Your task to perform on an android device: check battery use Image 0: 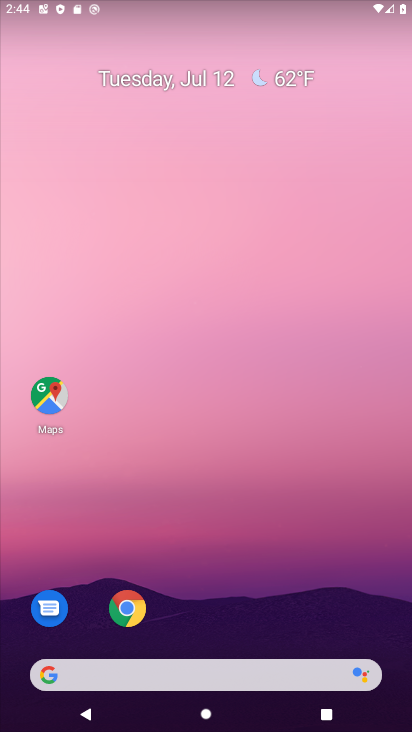
Step 0: drag from (117, 670) to (269, 168)
Your task to perform on an android device: check battery use Image 1: 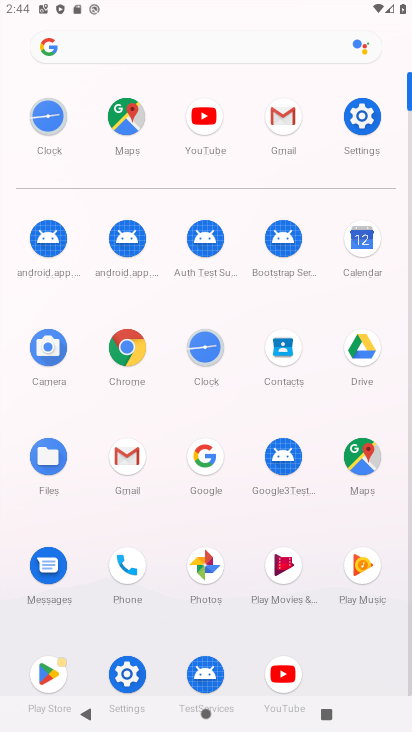
Step 1: click (366, 123)
Your task to perform on an android device: check battery use Image 2: 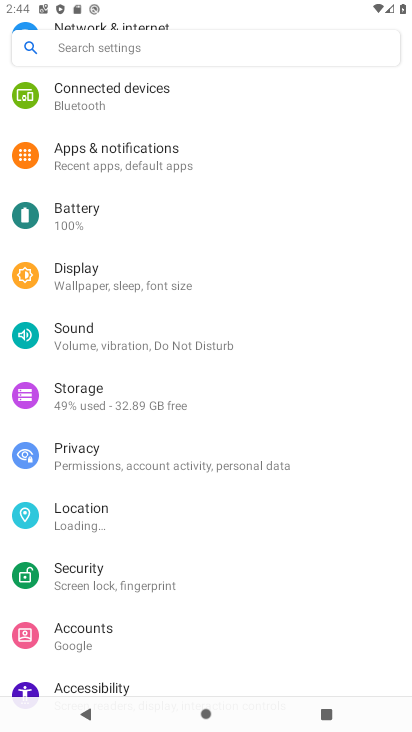
Step 2: click (73, 206)
Your task to perform on an android device: check battery use Image 3: 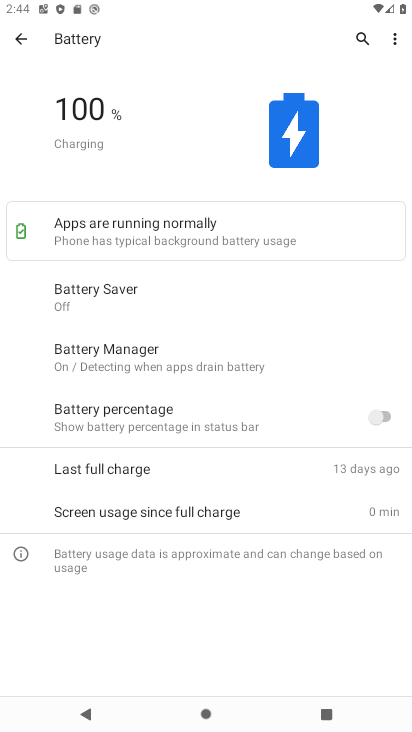
Step 3: click (395, 35)
Your task to perform on an android device: check battery use Image 4: 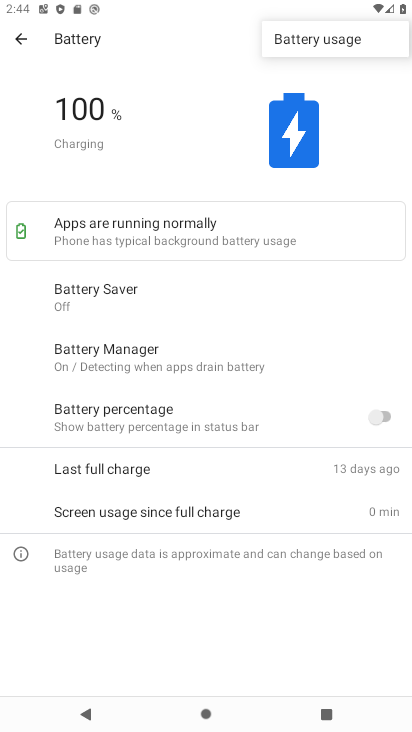
Step 4: click (297, 39)
Your task to perform on an android device: check battery use Image 5: 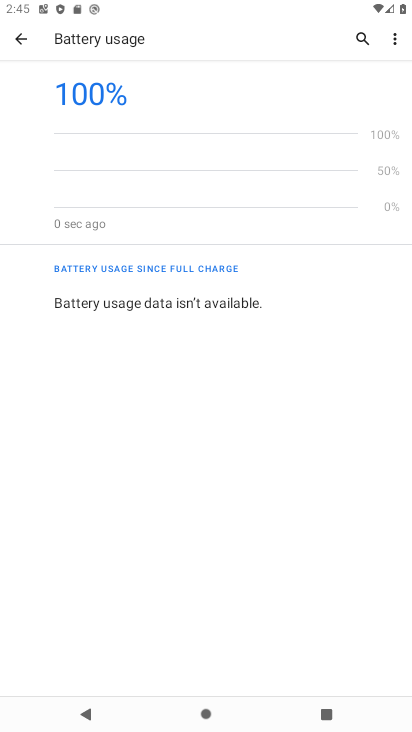
Step 5: task complete